Your task to perform on an android device: Show me productivity apps on the Play Store Image 0: 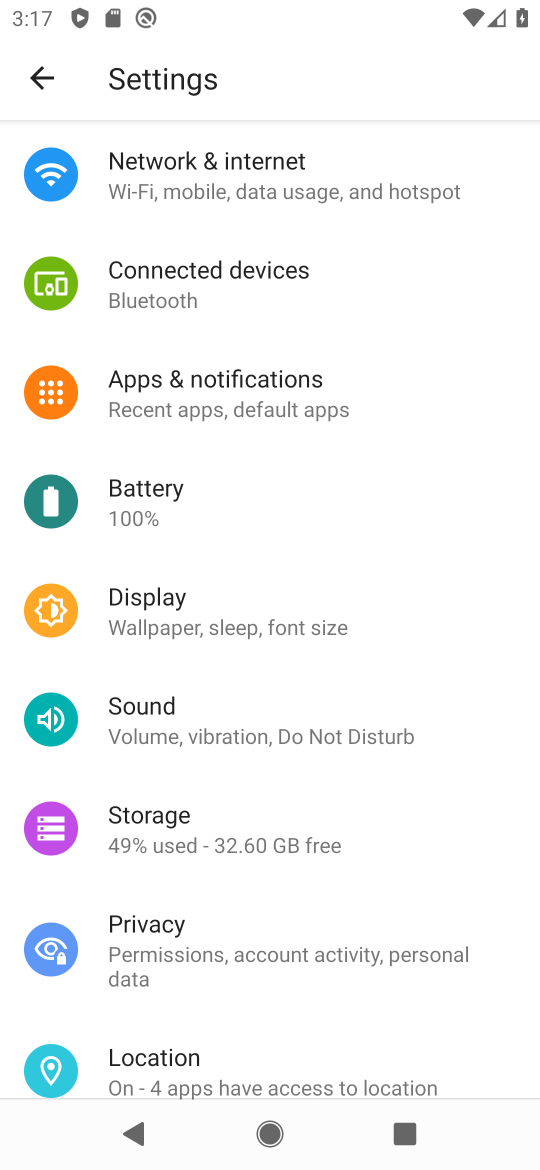
Step 0: press home button
Your task to perform on an android device: Show me productivity apps on the Play Store Image 1: 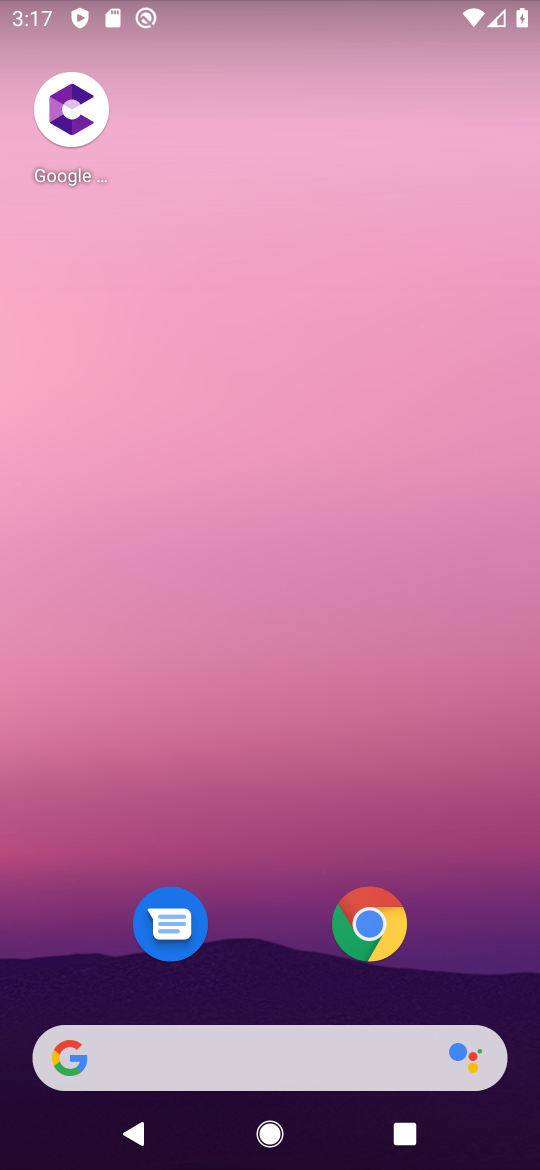
Step 1: drag from (257, 1077) to (332, 144)
Your task to perform on an android device: Show me productivity apps on the Play Store Image 2: 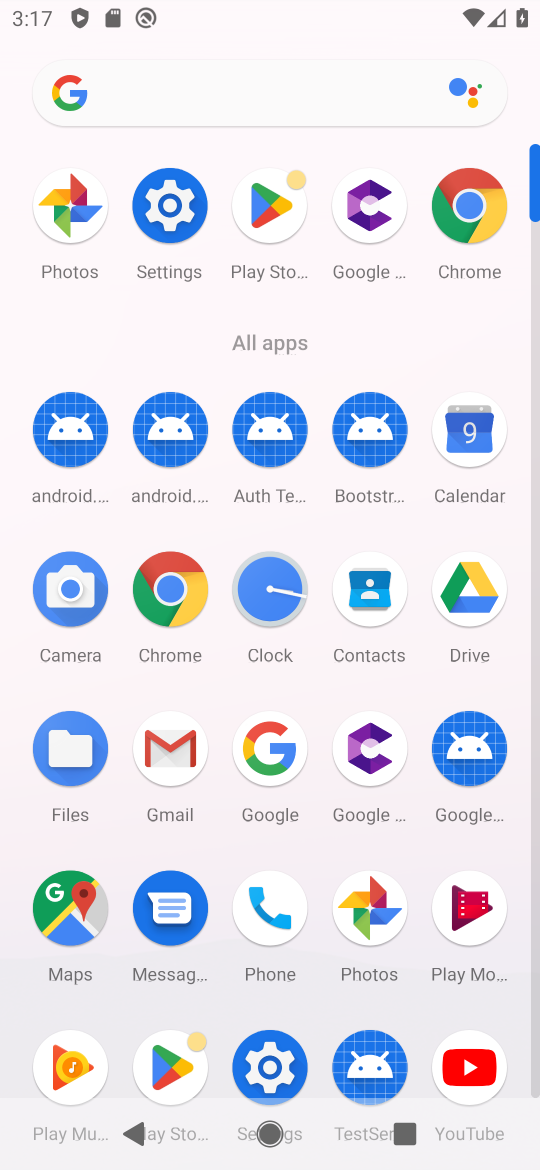
Step 2: click (174, 1064)
Your task to perform on an android device: Show me productivity apps on the Play Store Image 3: 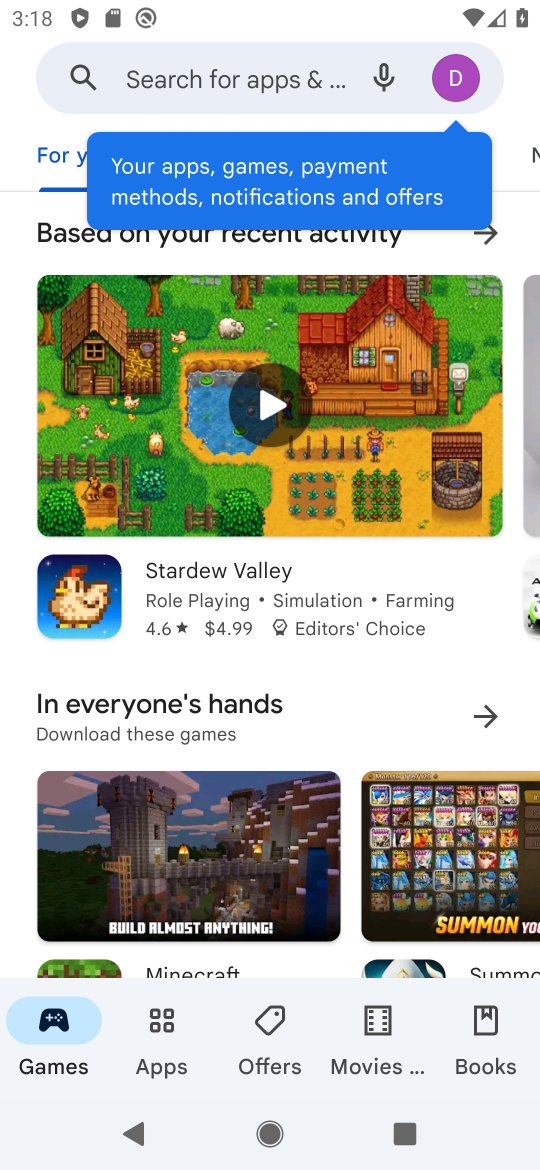
Step 3: click (157, 1036)
Your task to perform on an android device: Show me productivity apps on the Play Store Image 4: 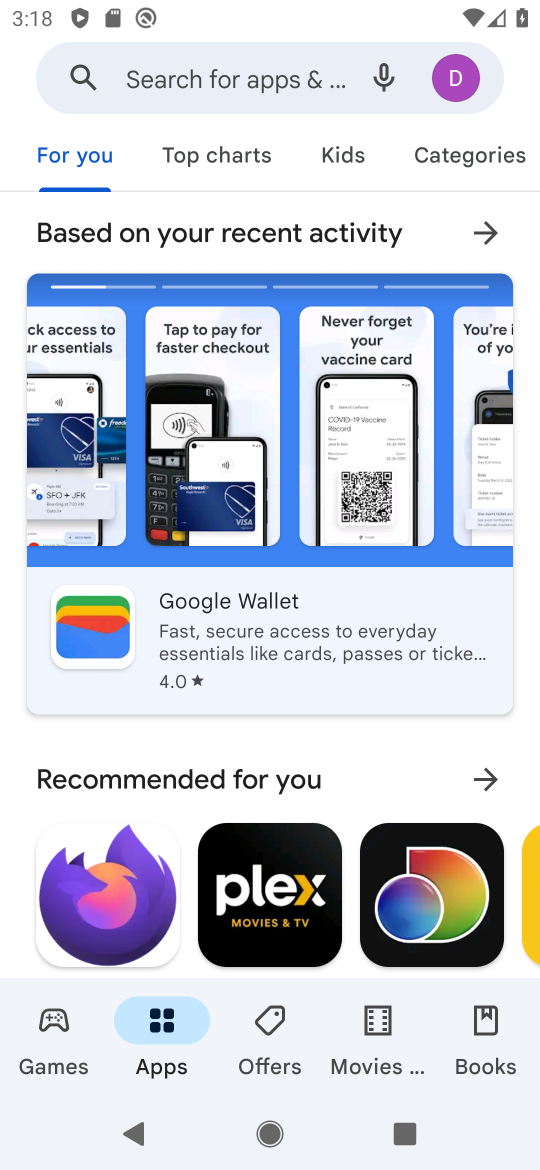
Step 4: click (477, 157)
Your task to perform on an android device: Show me productivity apps on the Play Store Image 5: 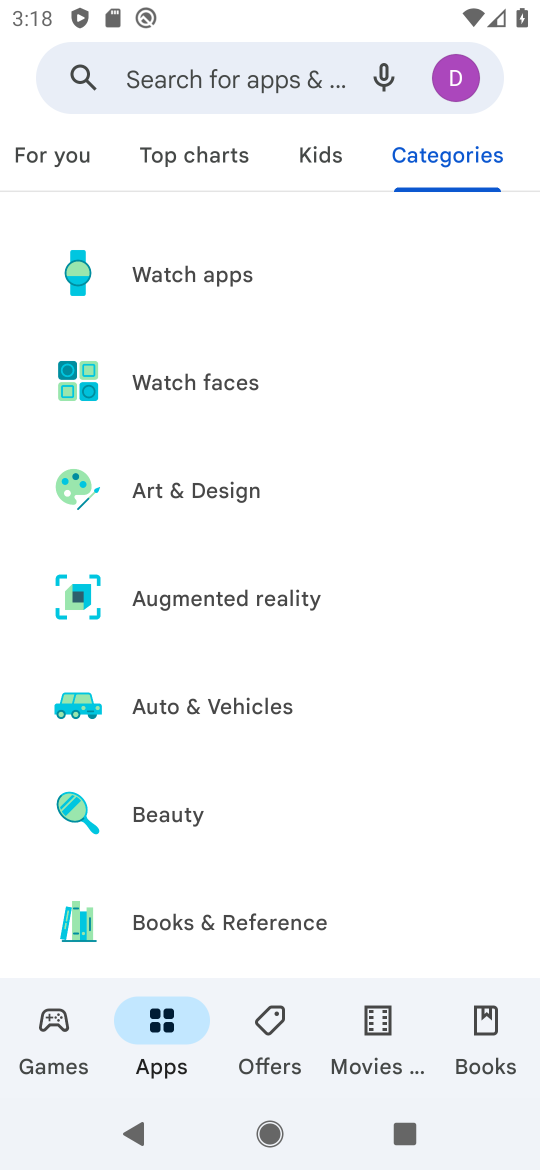
Step 5: drag from (236, 672) to (291, 434)
Your task to perform on an android device: Show me productivity apps on the Play Store Image 6: 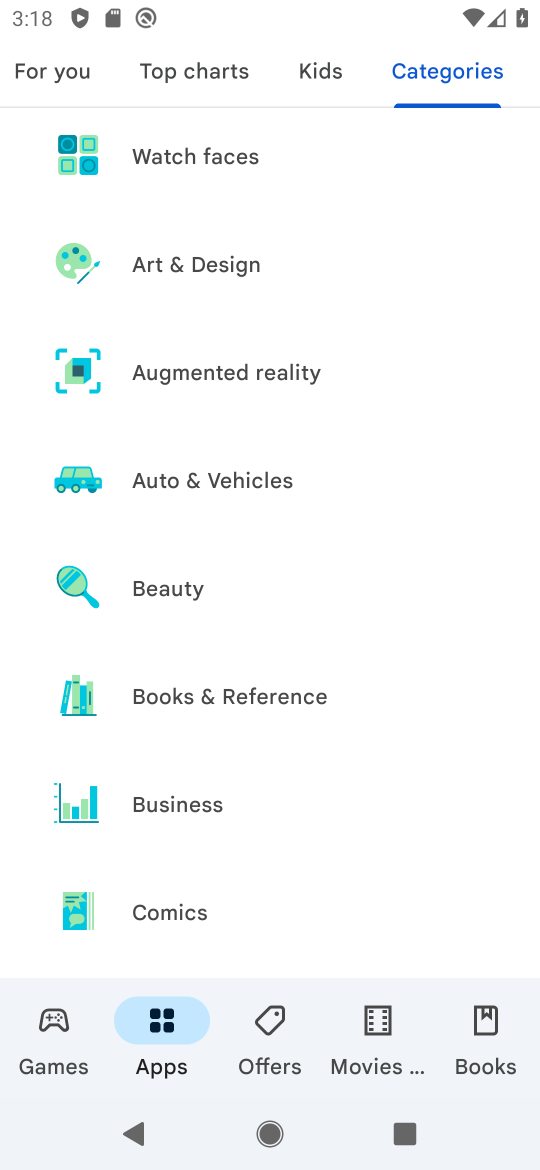
Step 6: drag from (167, 737) to (317, 537)
Your task to perform on an android device: Show me productivity apps on the Play Store Image 7: 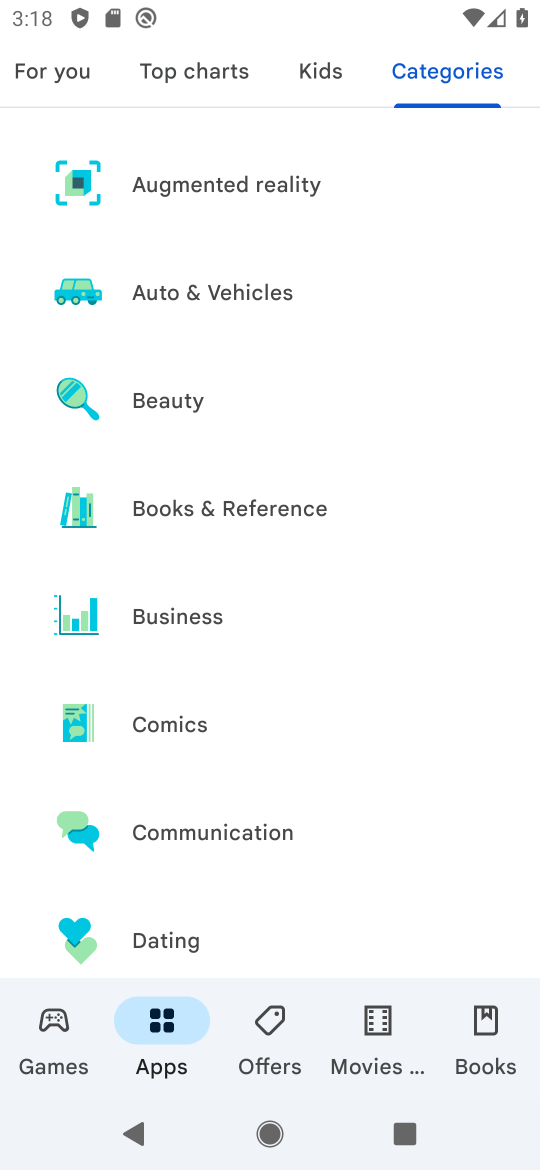
Step 7: drag from (198, 775) to (336, 583)
Your task to perform on an android device: Show me productivity apps on the Play Store Image 8: 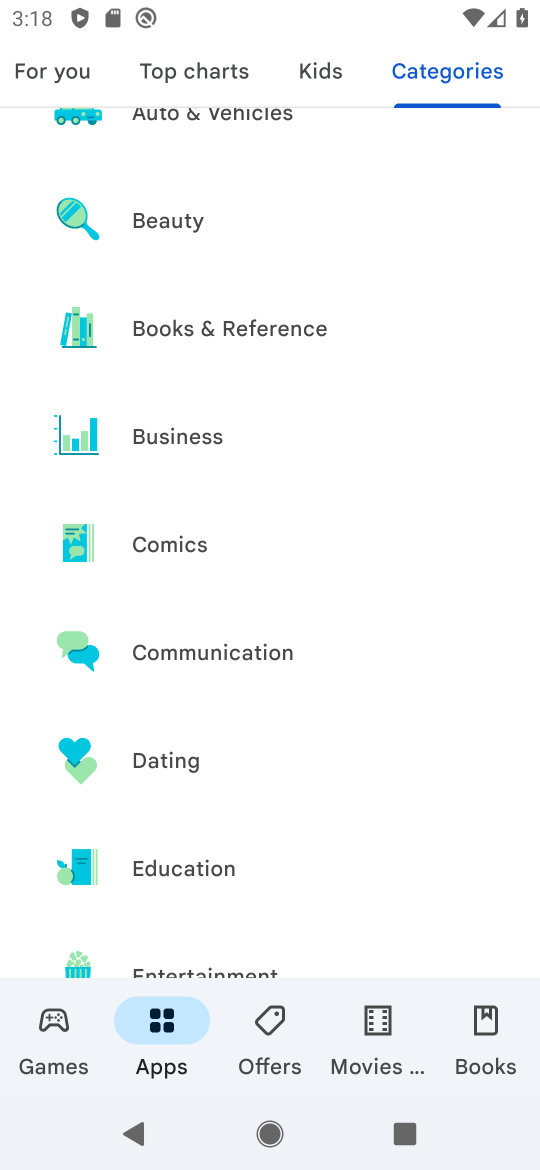
Step 8: drag from (215, 732) to (344, 552)
Your task to perform on an android device: Show me productivity apps on the Play Store Image 9: 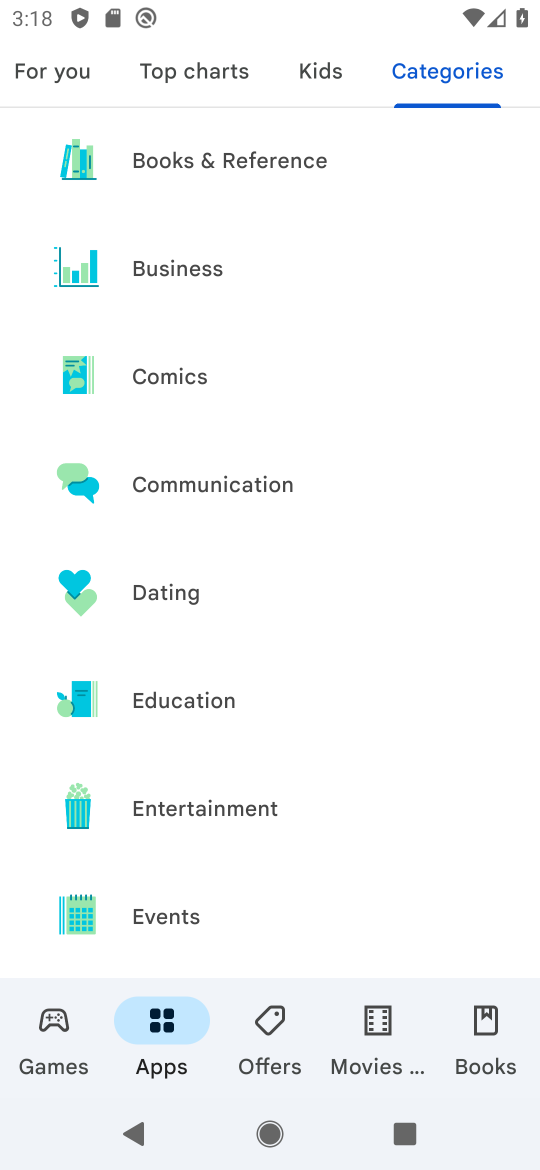
Step 9: drag from (211, 666) to (330, 480)
Your task to perform on an android device: Show me productivity apps on the Play Store Image 10: 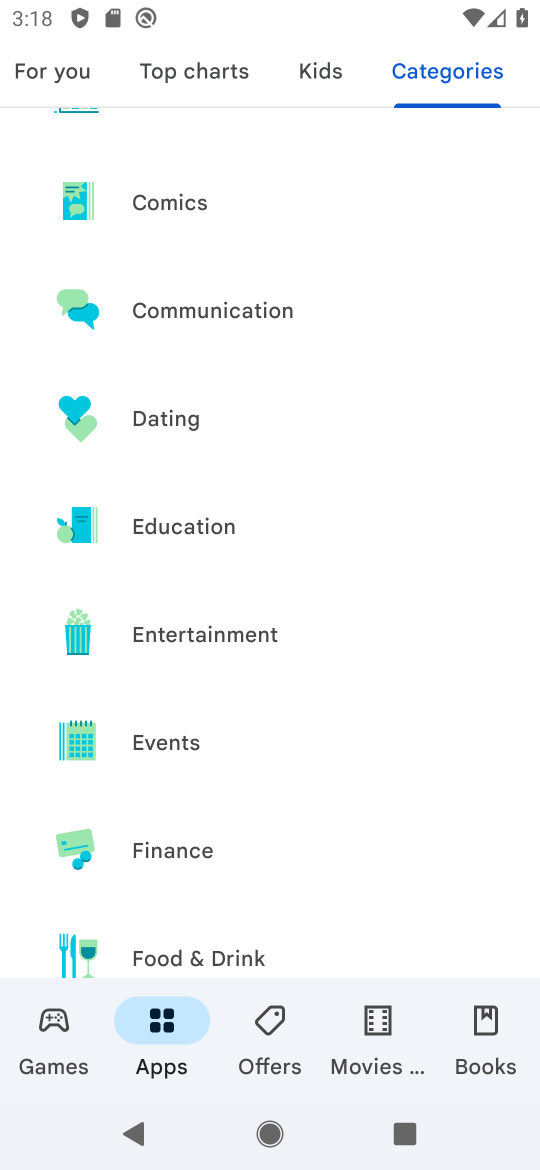
Step 10: drag from (197, 691) to (358, 456)
Your task to perform on an android device: Show me productivity apps on the Play Store Image 11: 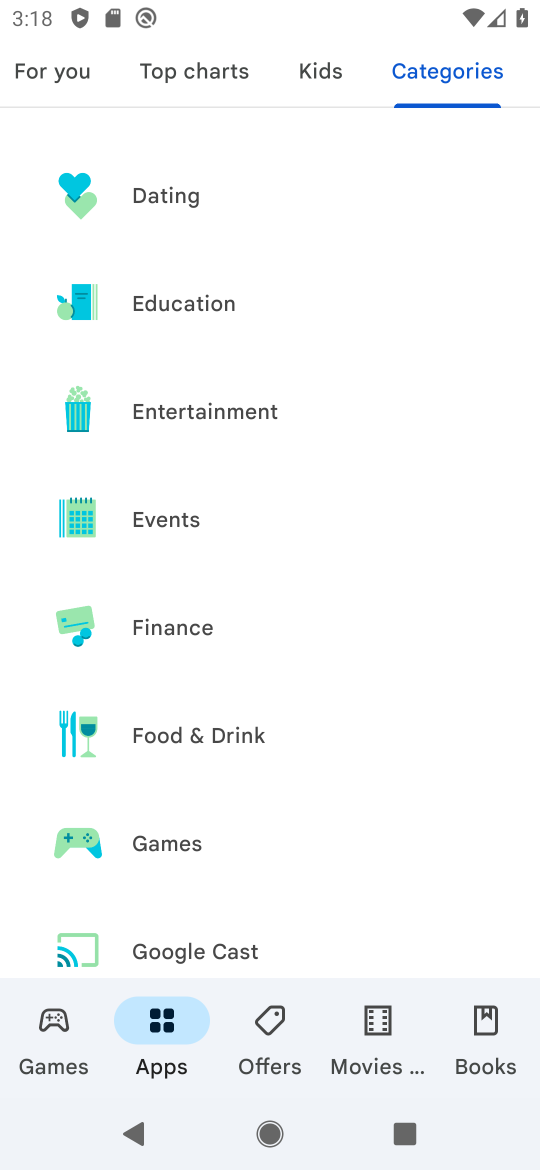
Step 11: drag from (138, 771) to (289, 589)
Your task to perform on an android device: Show me productivity apps on the Play Store Image 12: 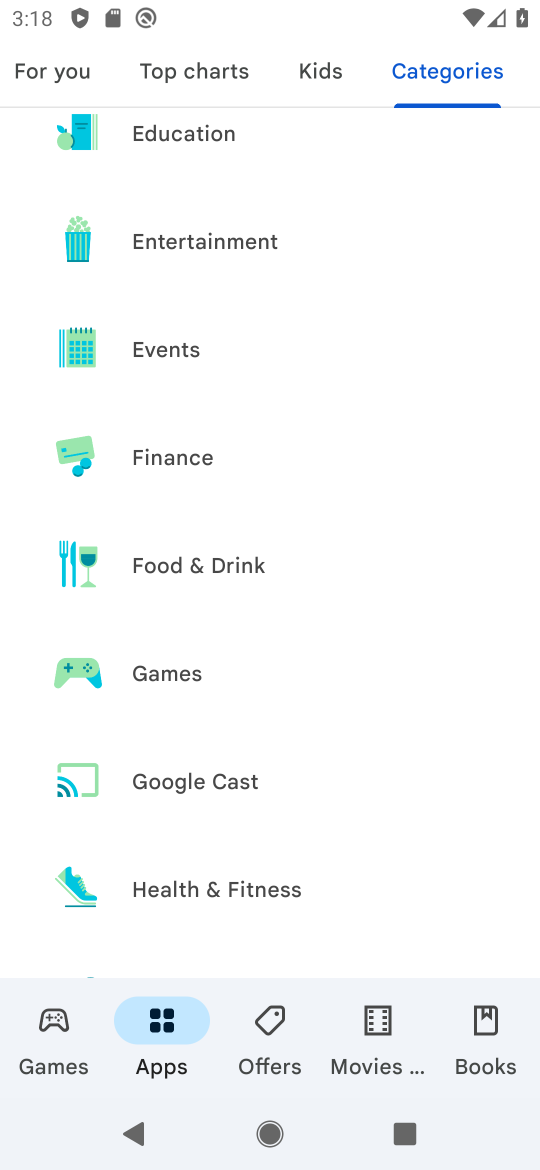
Step 12: drag from (211, 737) to (320, 556)
Your task to perform on an android device: Show me productivity apps on the Play Store Image 13: 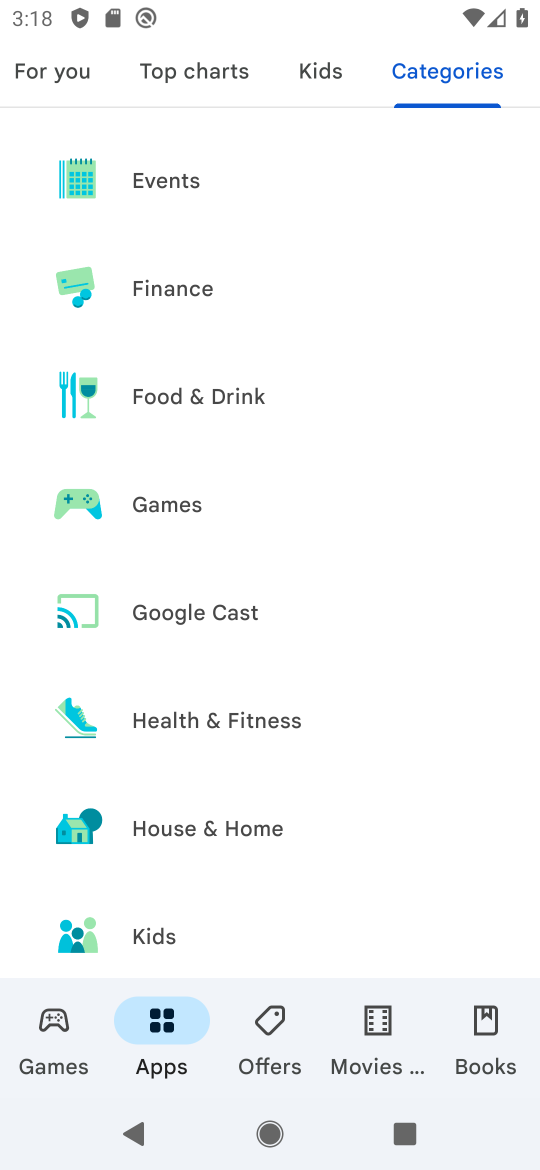
Step 13: drag from (196, 762) to (313, 610)
Your task to perform on an android device: Show me productivity apps on the Play Store Image 14: 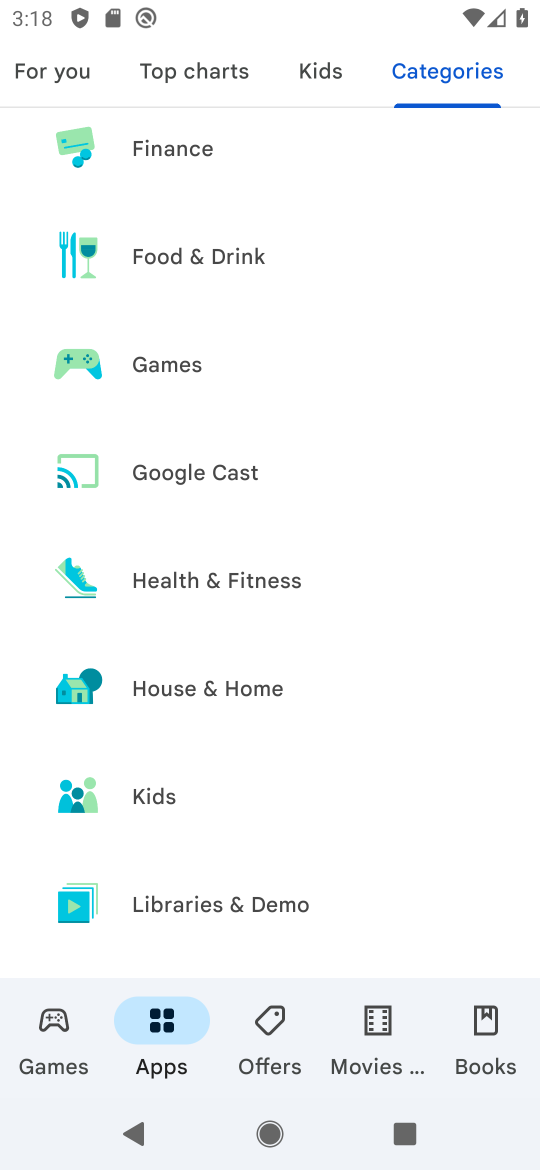
Step 14: drag from (221, 757) to (360, 575)
Your task to perform on an android device: Show me productivity apps on the Play Store Image 15: 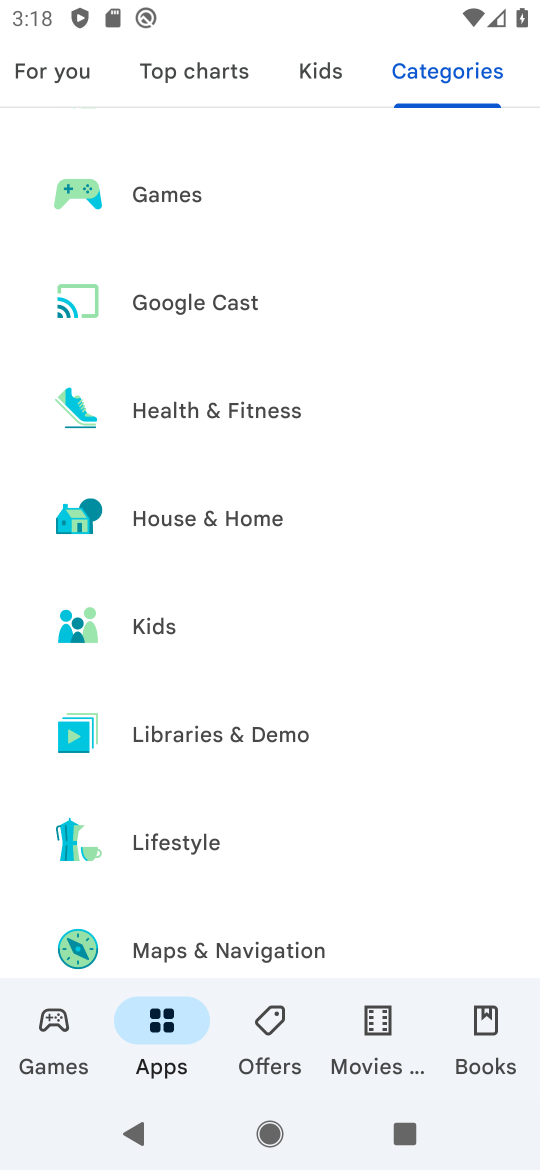
Step 15: drag from (243, 786) to (411, 568)
Your task to perform on an android device: Show me productivity apps on the Play Store Image 16: 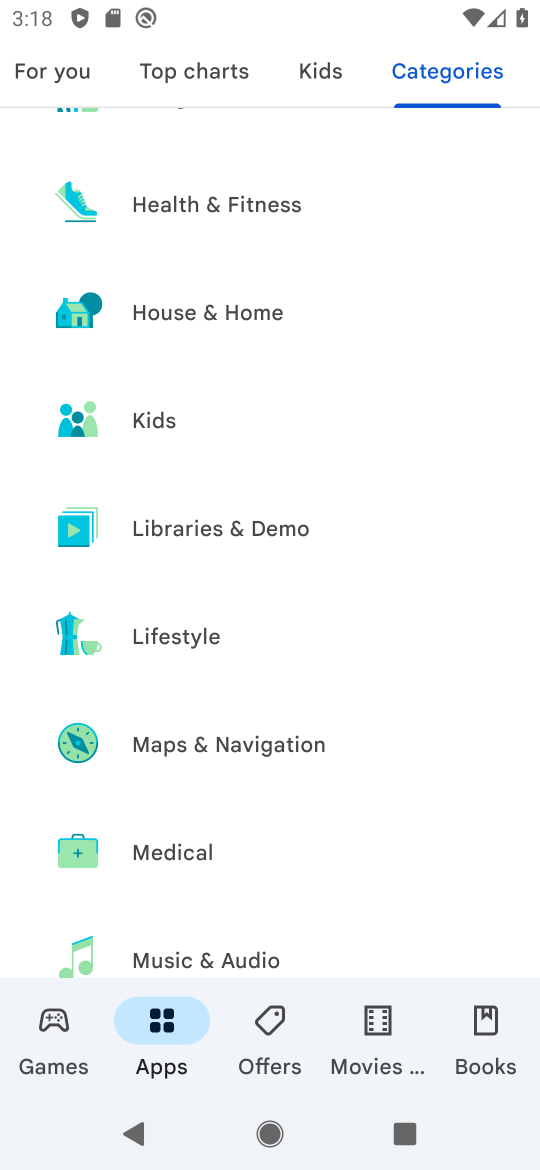
Step 16: drag from (229, 779) to (356, 606)
Your task to perform on an android device: Show me productivity apps on the Play Store Image 17: 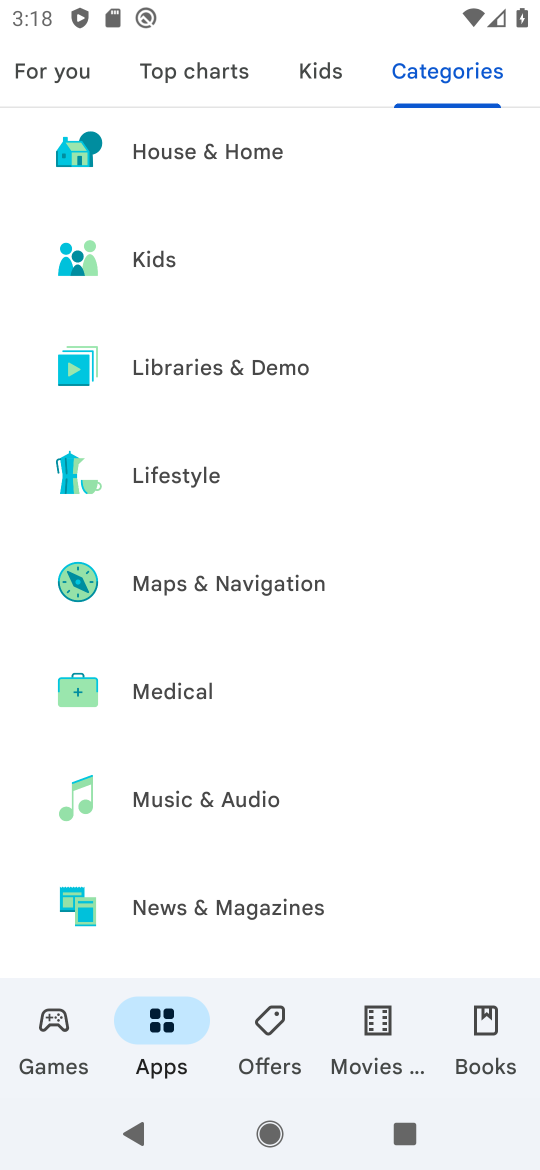
Step 17: drag from (239, 772) to (383, 596)
Your task to perform on an android device: Show me productivity apps on the Play Store Image 18: 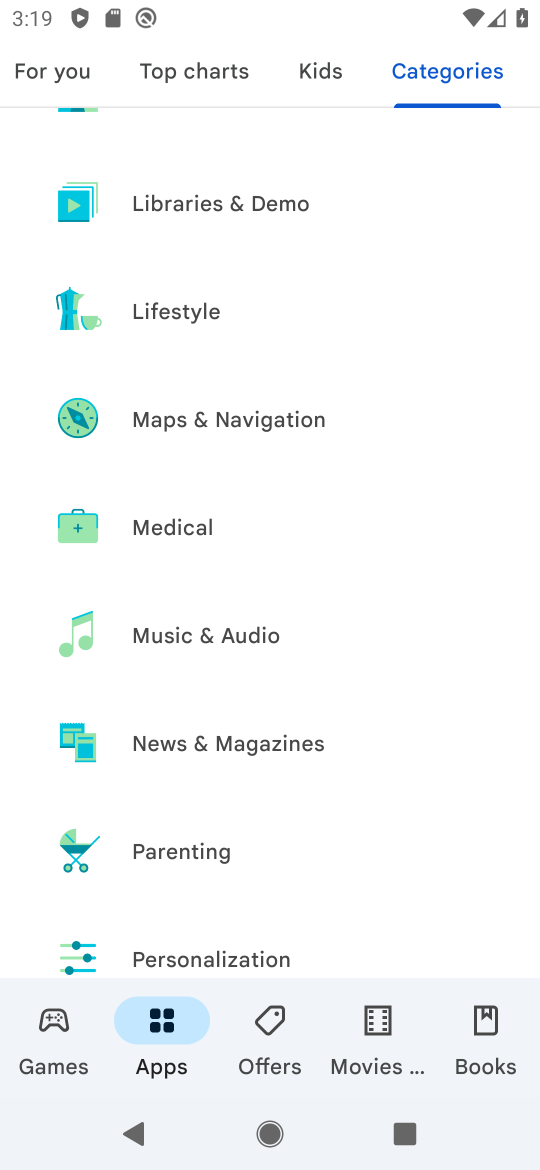
Step 18: drag from (210, 779) to (315, 615)
Your task to perform on an android device: Show me productivity apps on the Play Store Image 19: 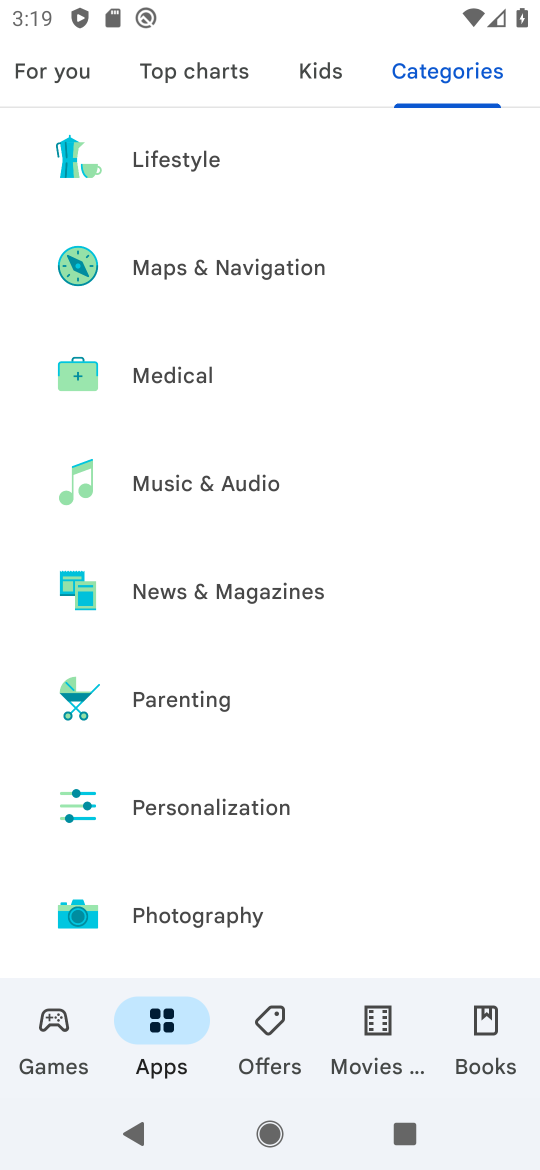
Step 19: drag from (182, 837) to (289, 721)
Your task to perform on an android device: Show me productivity apps on the Play Store Image 20: 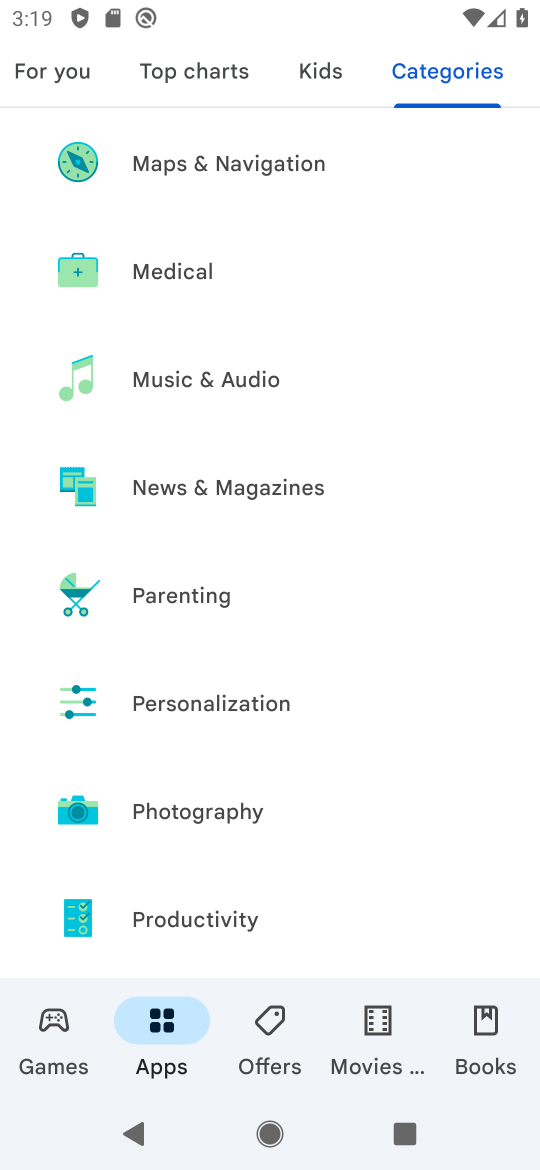
Step 20: click (249, 910)
Your task to perform on an android device: Show me productivity apps on the Play Store Image 21: 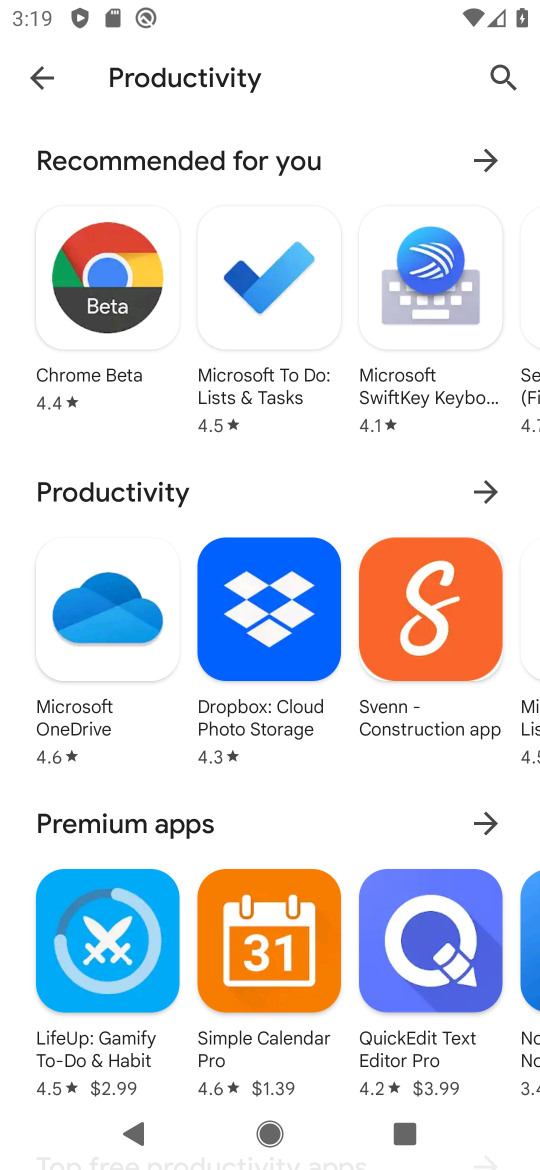
Step 21: task complete